Your task to perform on an android device: Add logitech g502 to the cart on walmart.com Image 0: 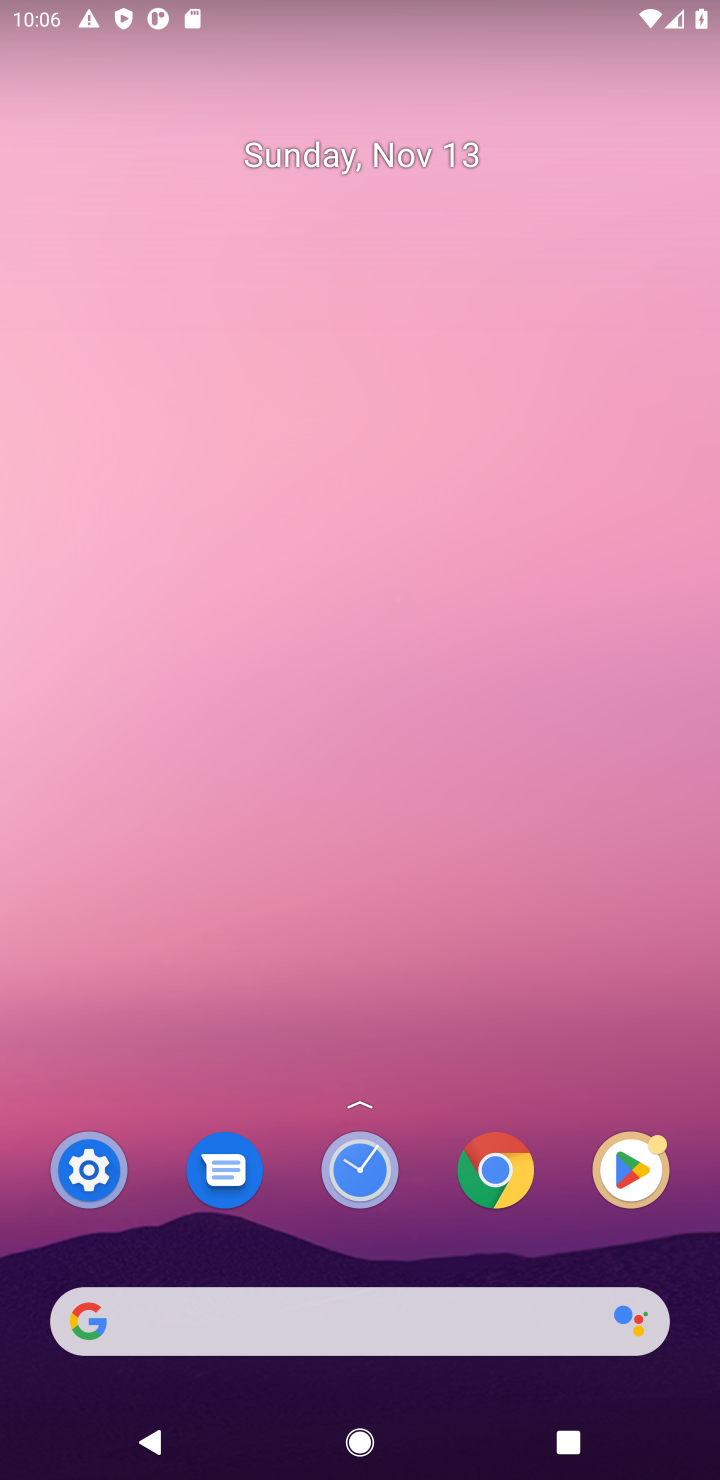
Step 0: click (288, 1324)
Your task to perform on an android device: Add logitech g502 to the cart on walmart.com Image 1: 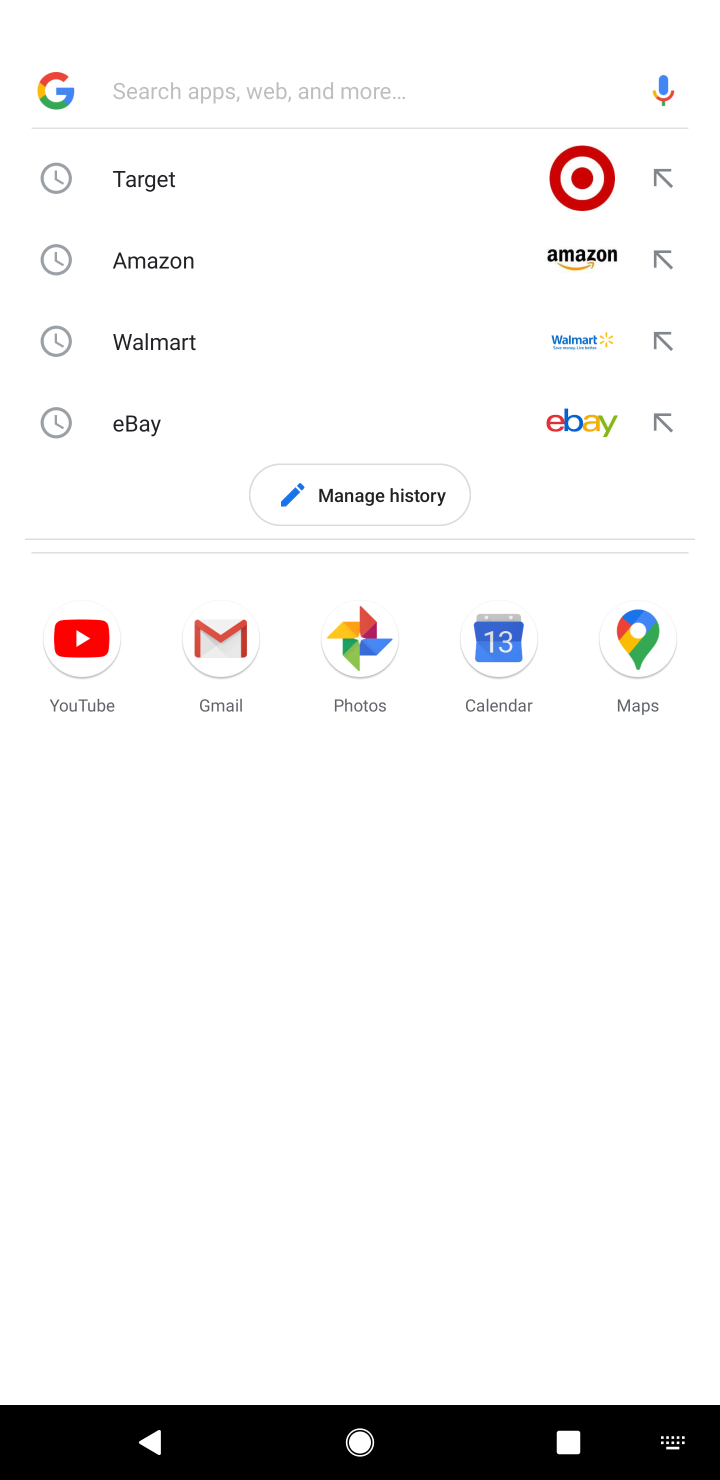
Step 1: type "walmart"
Your task to perform on an android device: Add logitech g502 to the cart on walmart.com Image 2: 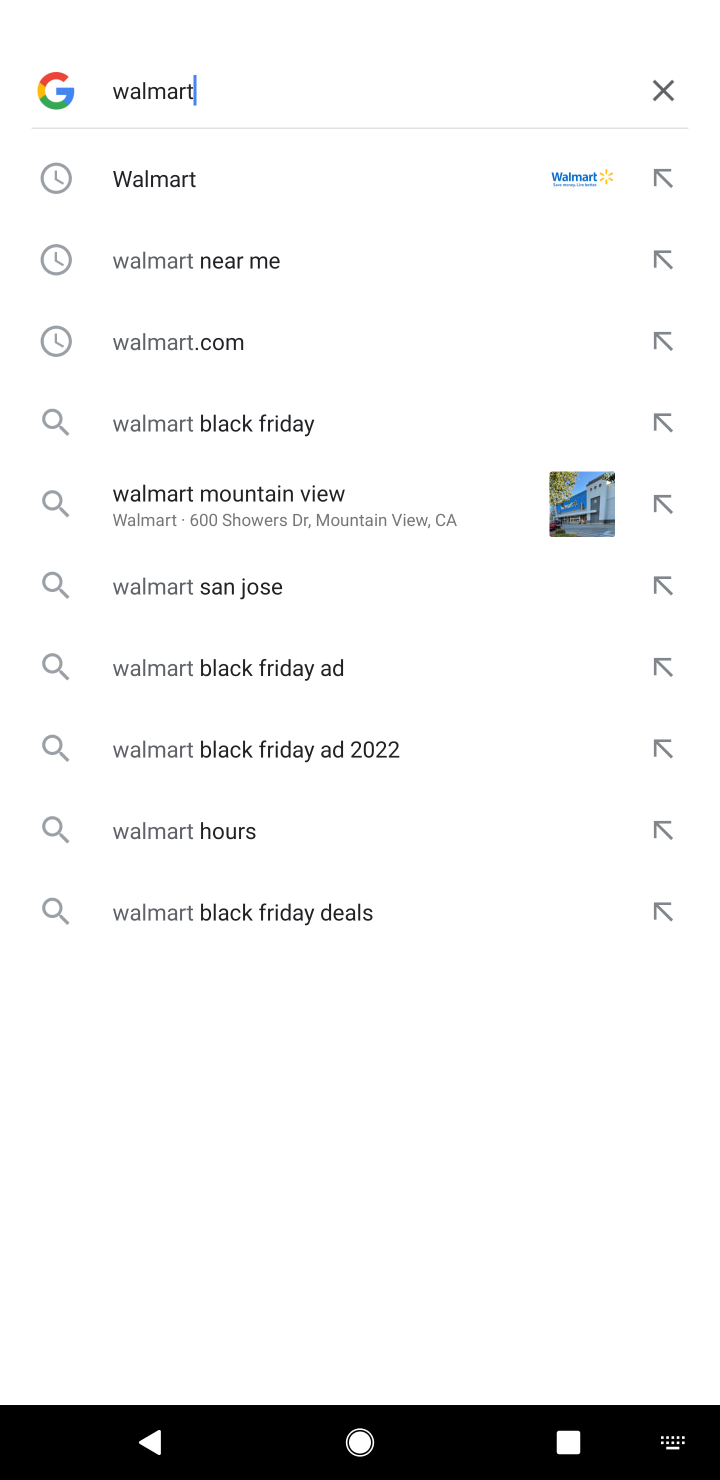
Step 2: click (191, 176)
Your task to perform on an android device: Add logitech g502 to the cart on walmart.com Image 3: 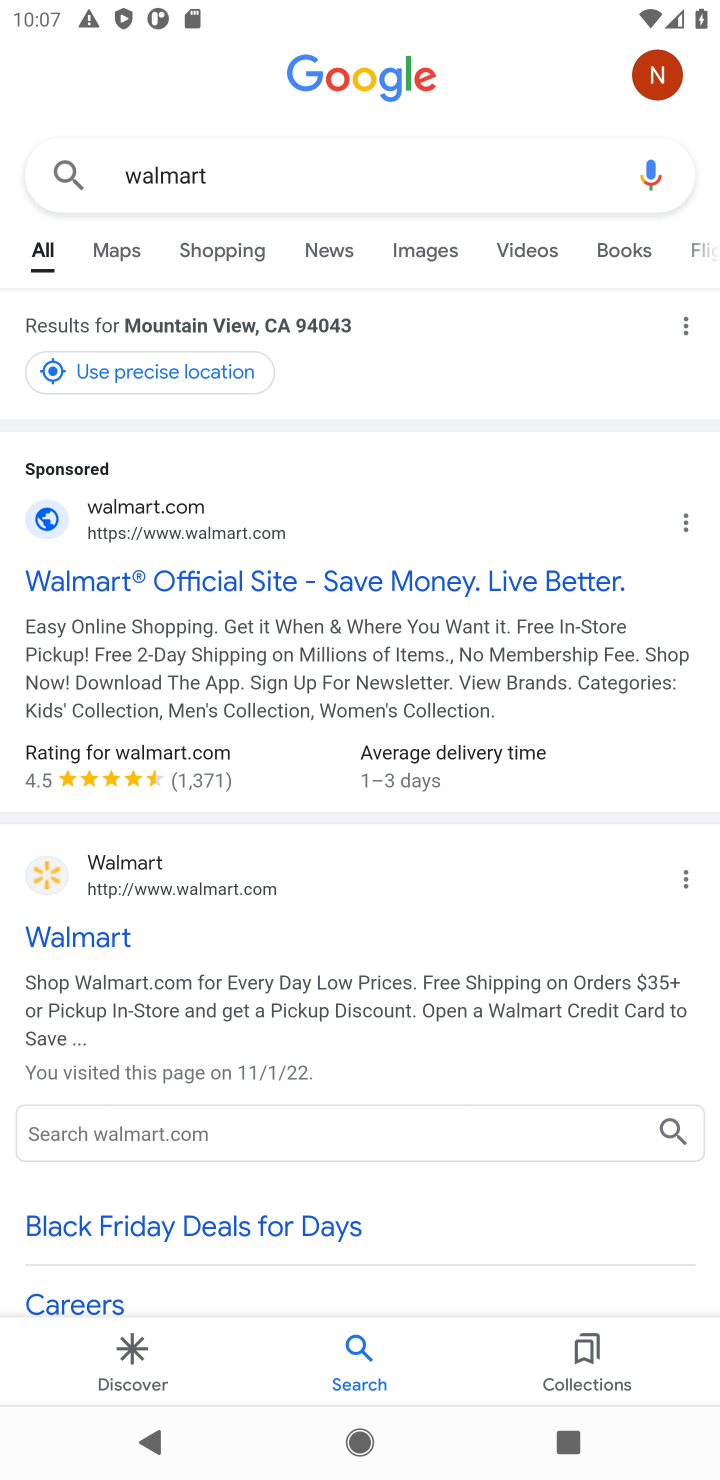
Step 3: click (225, 595)
Your task to perform on an android device: Add logitech g502 to the cart on walmart.com Image 4: 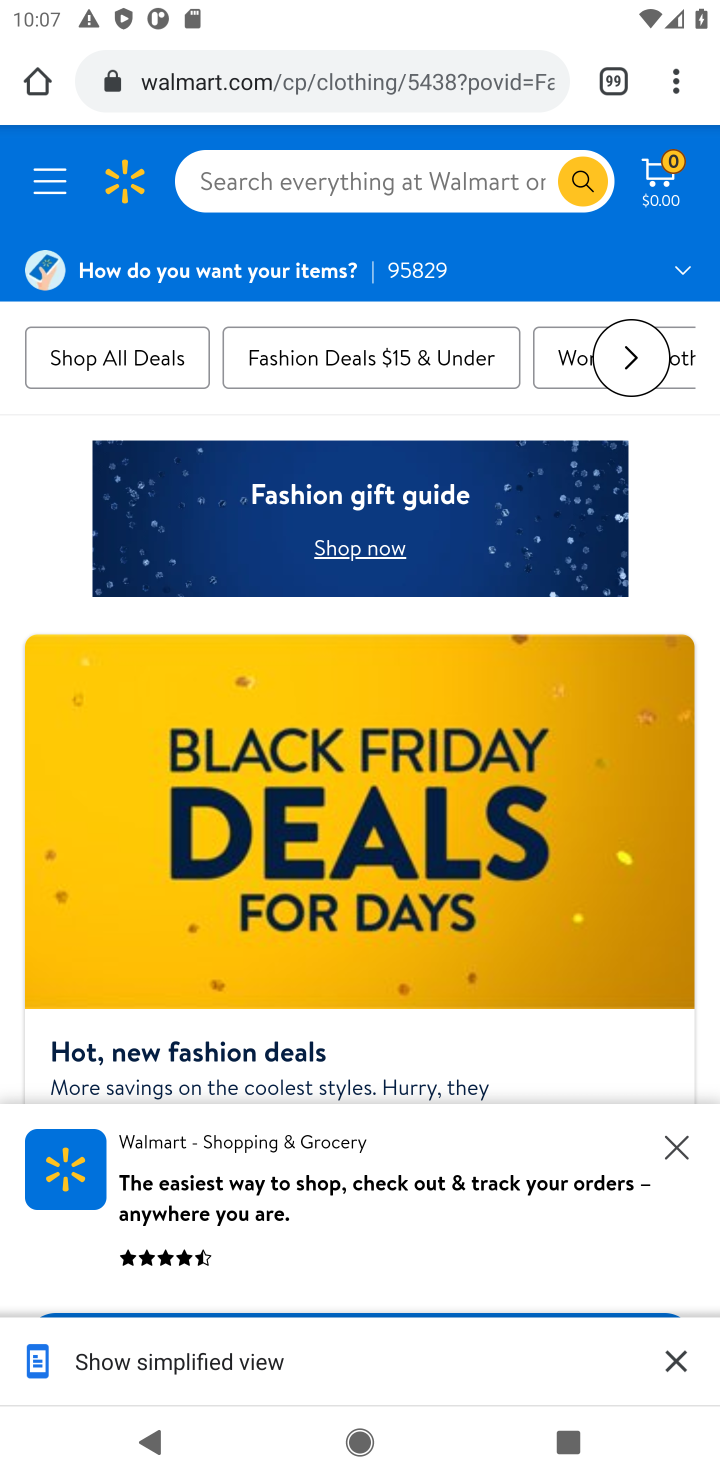
Step 4: click (436, 211)
Your task to perform on an android device: Add logitech g502 to the cart on walmart.com Image 5: 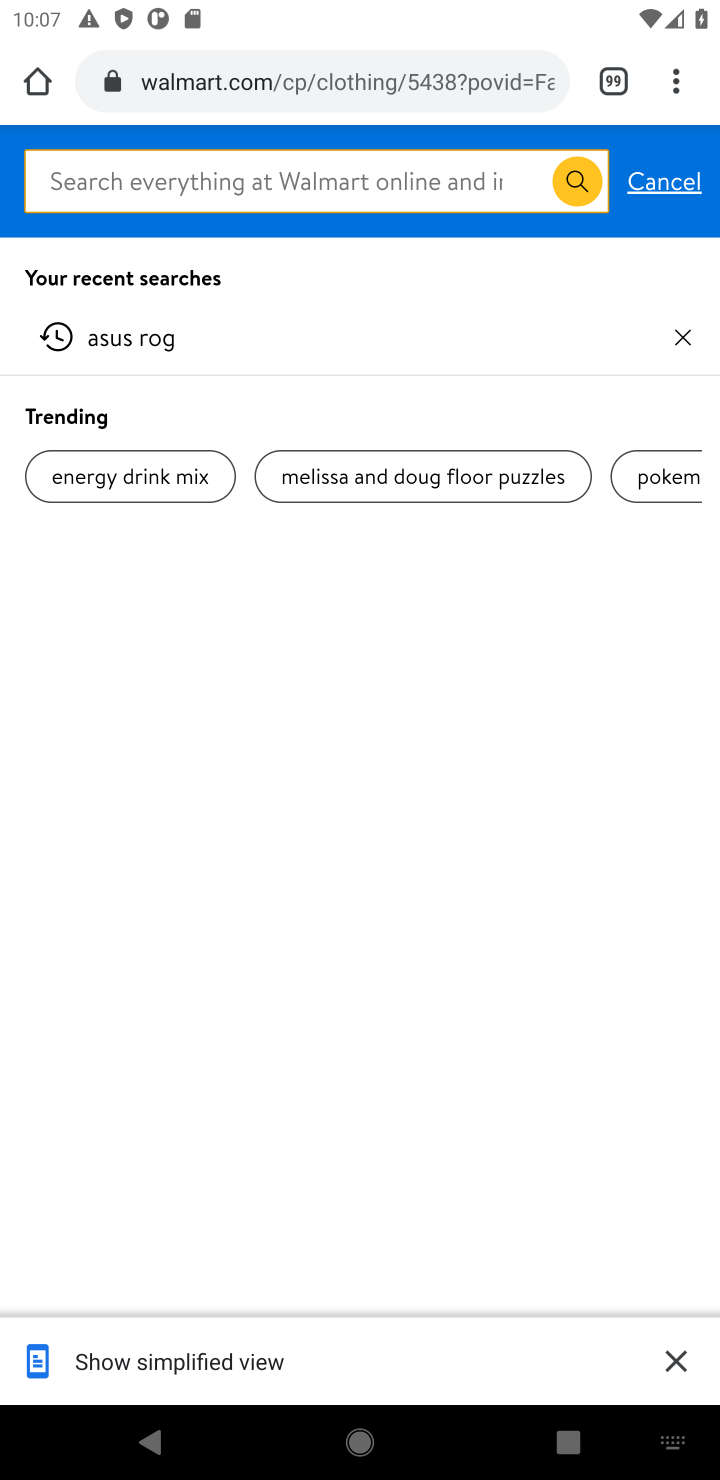
Step 5: type "logitech g502"
Your task to perform on an android device: Add logitech g502 to the cart on walmart.com Image 6: 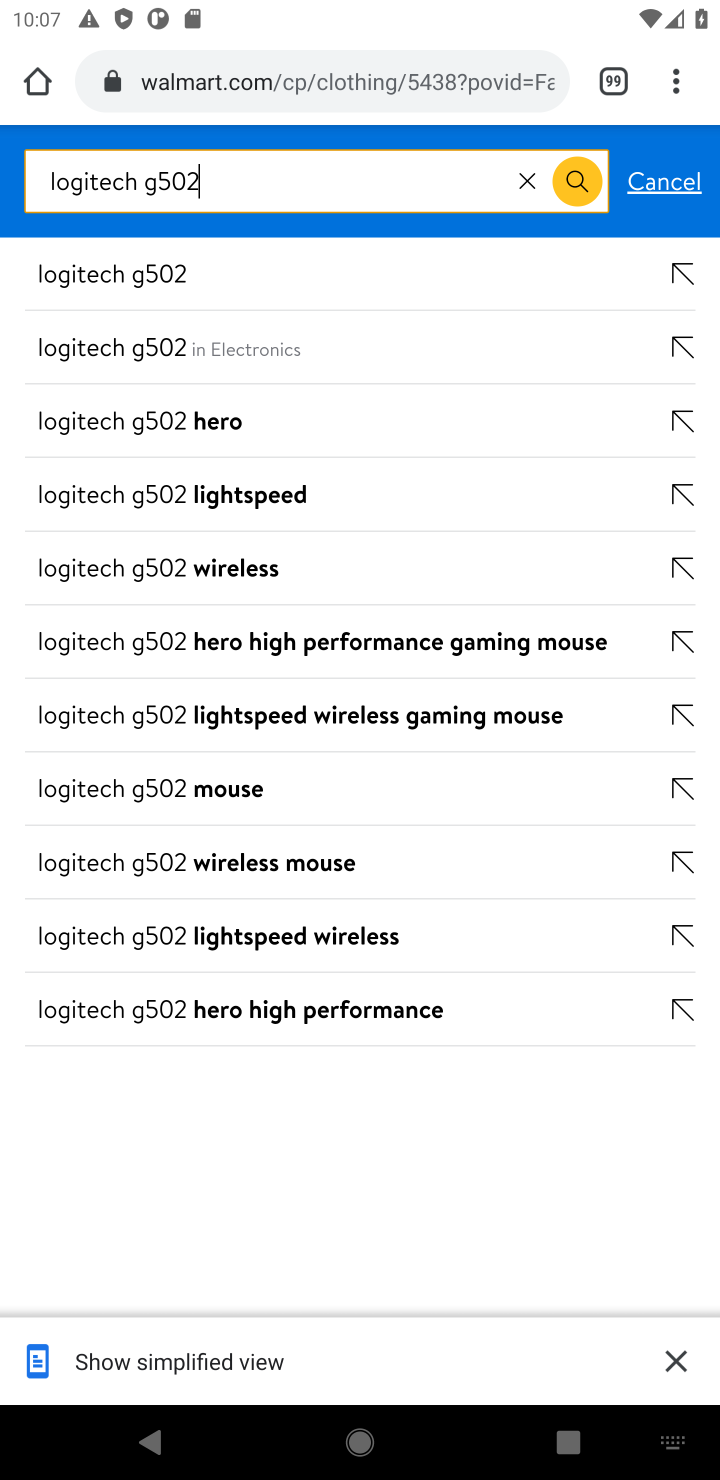
Step 6: click (218, 280)
Your task to perform on an android device: Add logitech g502 to the cart on walmart.com Image 7: 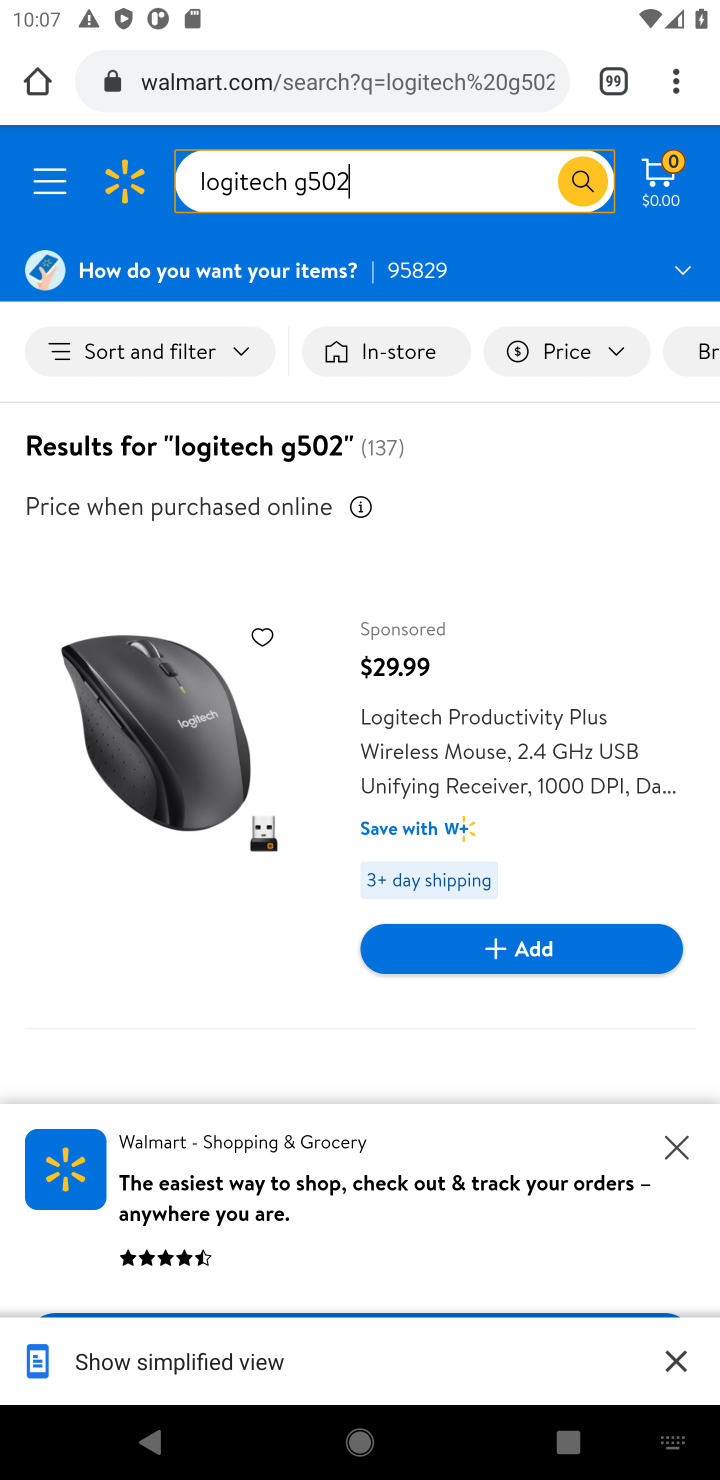
Step 7: click (589, 946)
Your task to perform on an android device: Add logitech g502 to the cart on walmart.com Image 8: 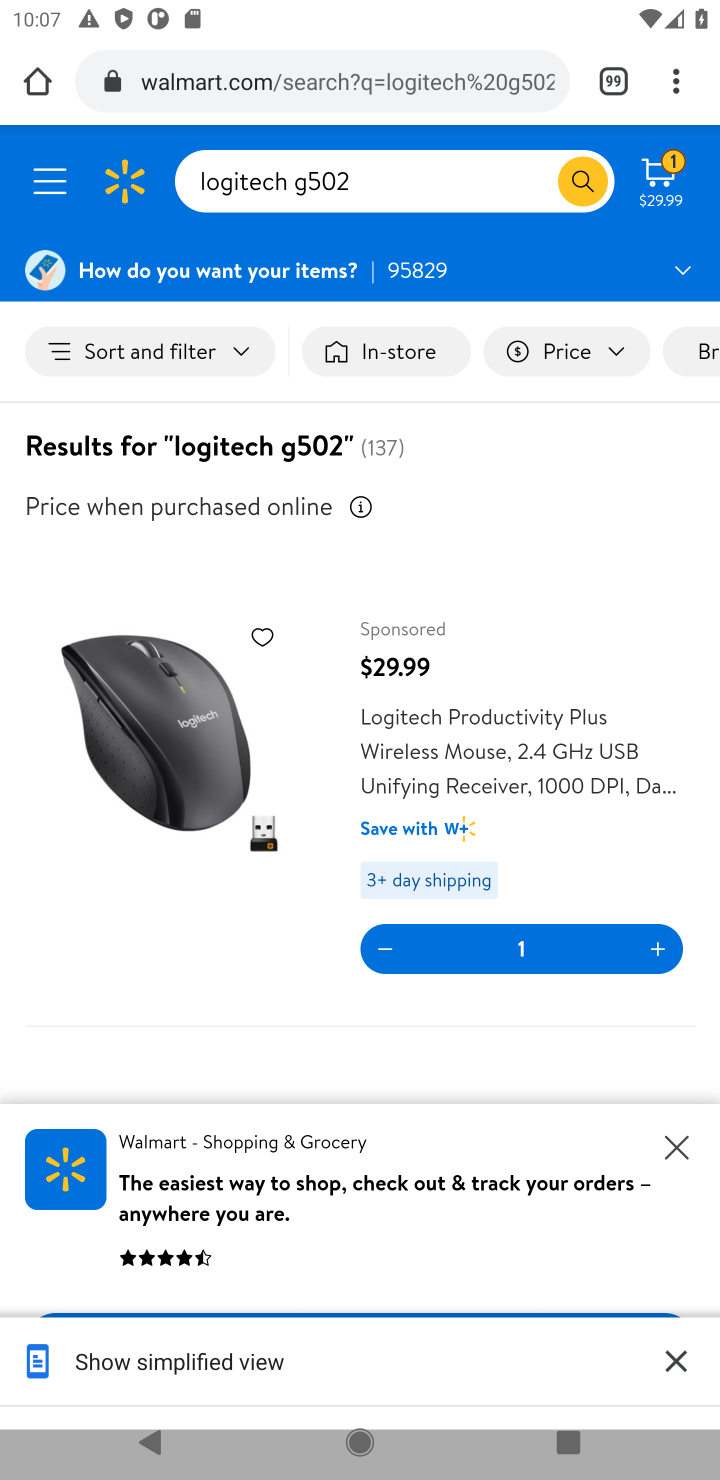
Step 8: task complete